Your task to perform on an android device: Go to Reddit.com Image 0: 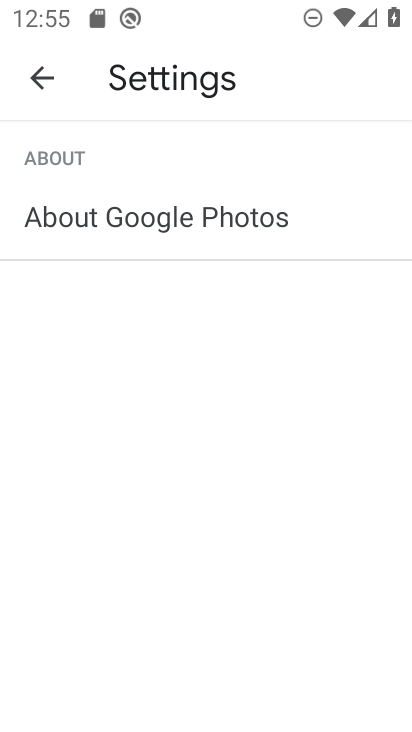
Step 0: press home button
Your task to perform on an android device: Go to Reddit.com Image 1: 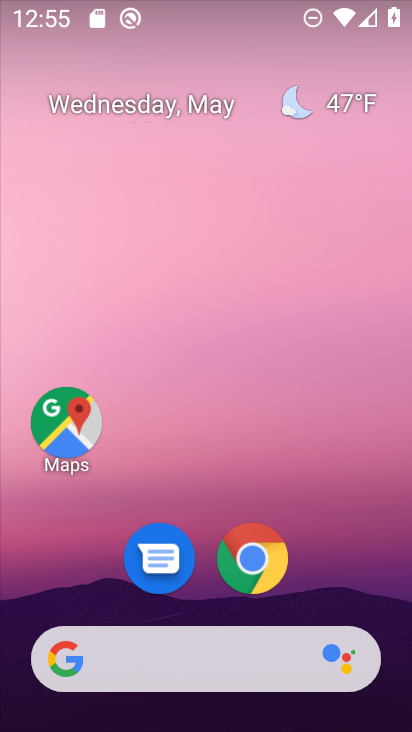
Step 1: click (243, 555)
Your task to perform on an android device: Go to Reddit.com Image 2: 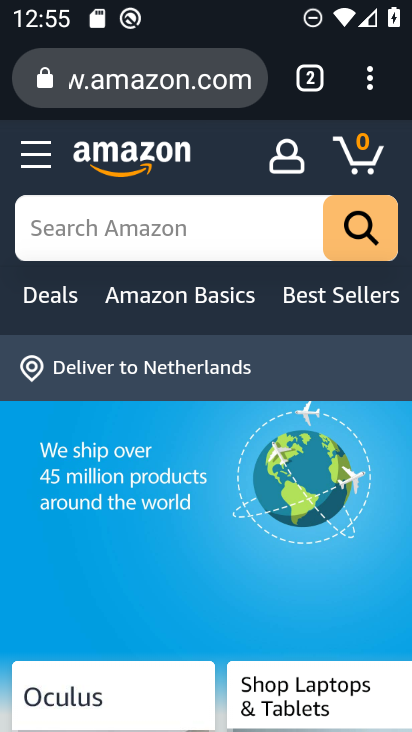
Step 2: click (154, 80)
Your task to perform on an android device: Go to Reddit.com Image 3: 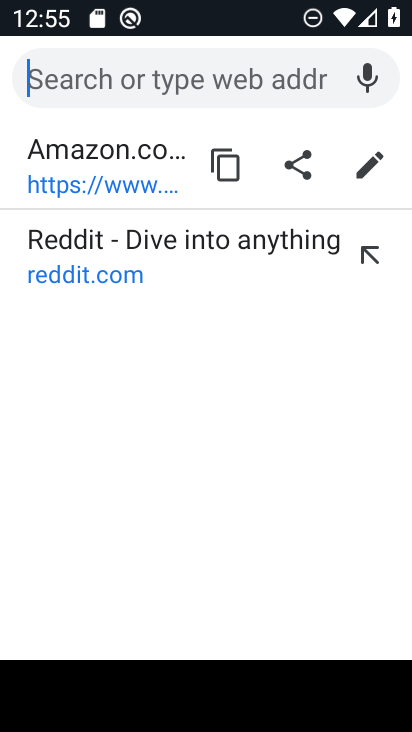
Step 3: type "reddit.com"
Your task to perform on an android device: Go to Reddit.com Image 4: 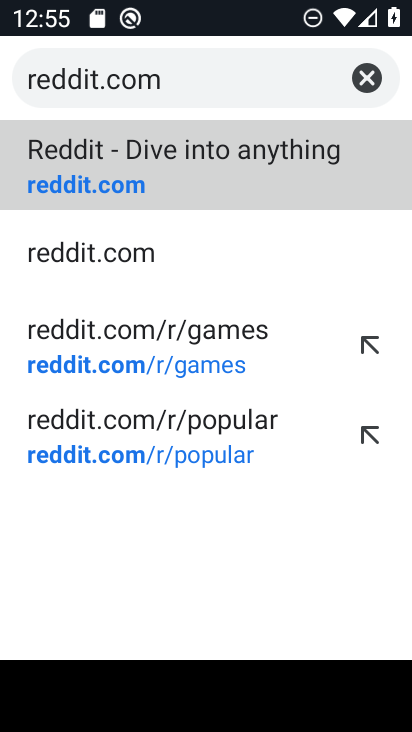
Step 4: click (135, 254)
Your task to perform on an android device: Go to Reddit.com Image 5: 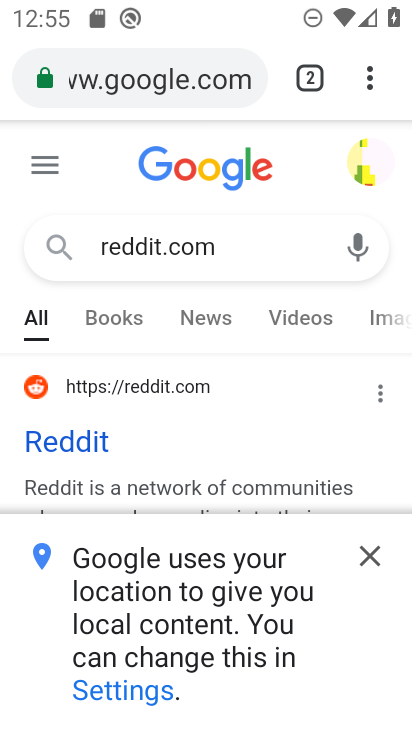
Step 5: task complete